Your task to perform on an android device: Search for "lenovo thinkpad" on amazon, select the first entry, add it to the cart, then select checkout. Image 0: 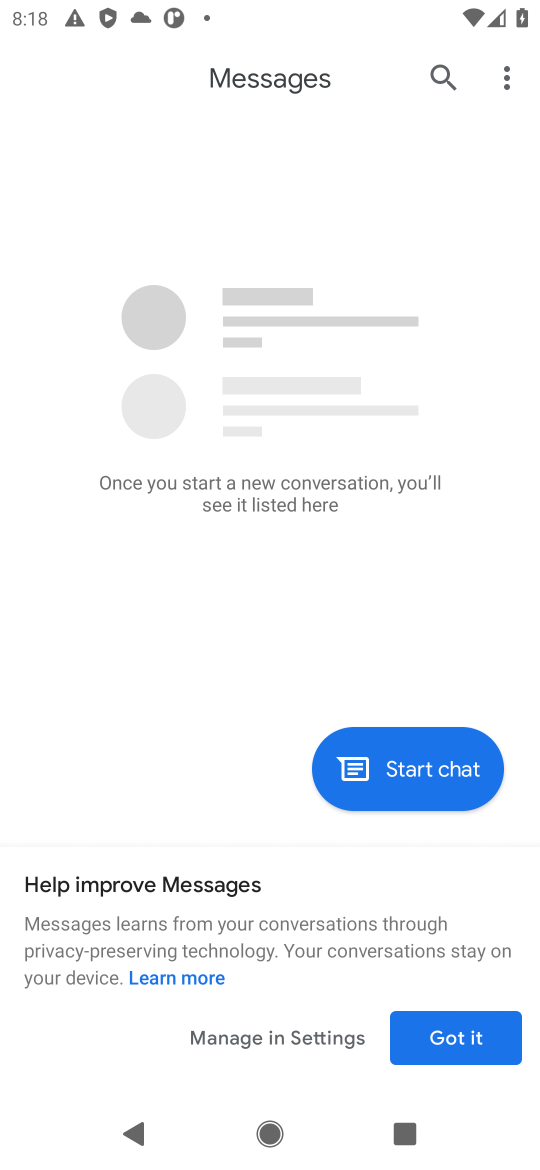
Step 0: press home button
Your task to perform on an android device: Search for "lenovo thinkpad" on amazon, select the first entry, add it to the cart, then select checkout. Image 1: 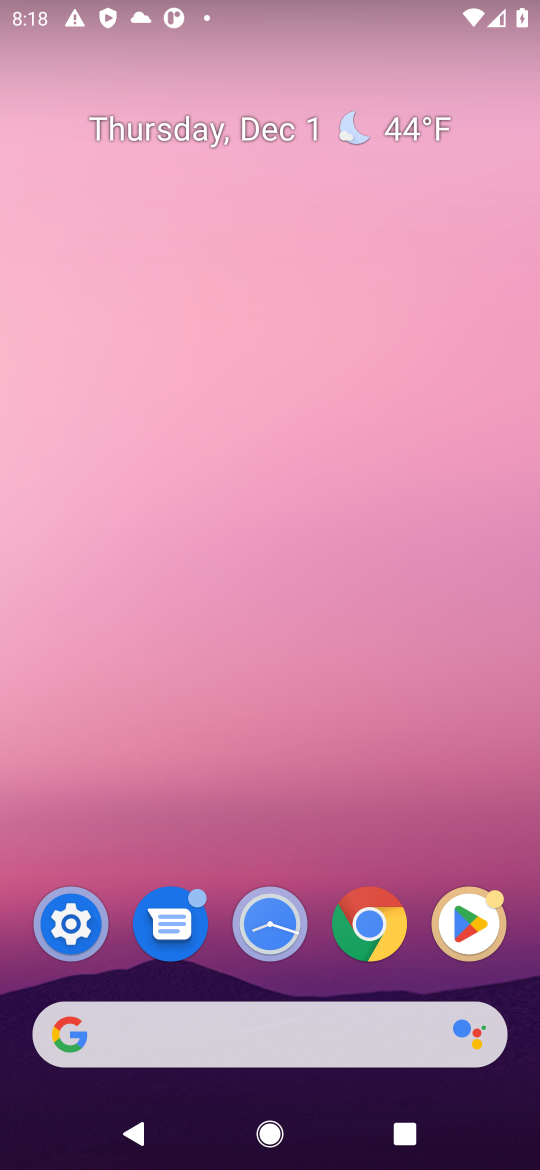
Step 1: click (173, 1029)
Your task to perform on an android device: Search for "lenovo thinkpad" on amazon, select the first entry, add it to the cart, then select checkout. Image 2: 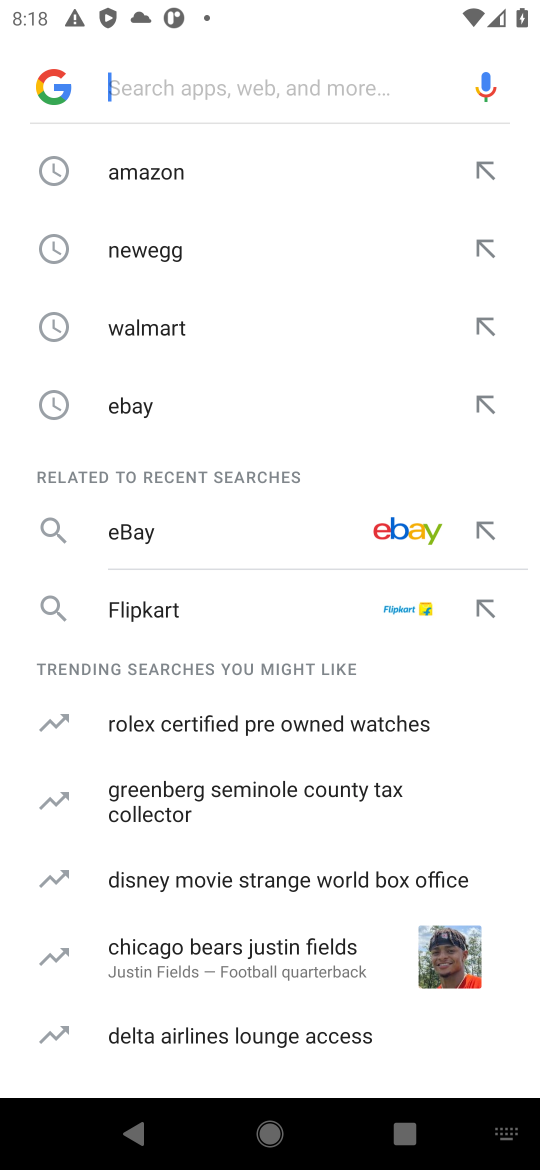
Step 2: click (189, 180)
Your task to perform on an android device: Search for "lenovo thinkpad" on amazon, select the first entry, add it to the cart, then select checkout. Image 3: 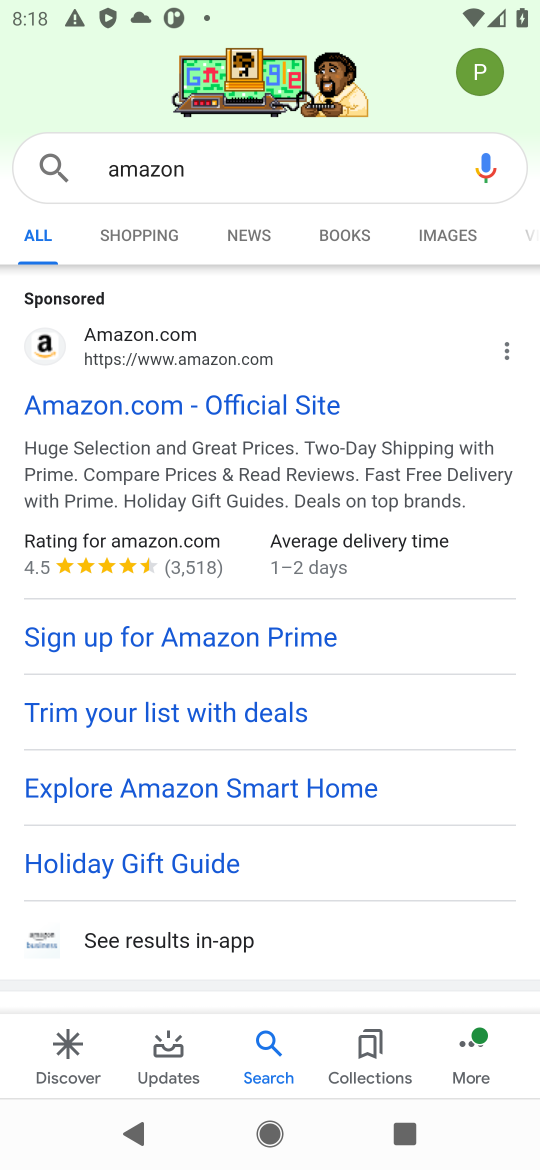
Step 3: click (146, 423)
Your task to perform on an android device: Search for "lenovo thinkpad" on amazon, select the first entry, add it to the cart, then select checkout. Image 4: 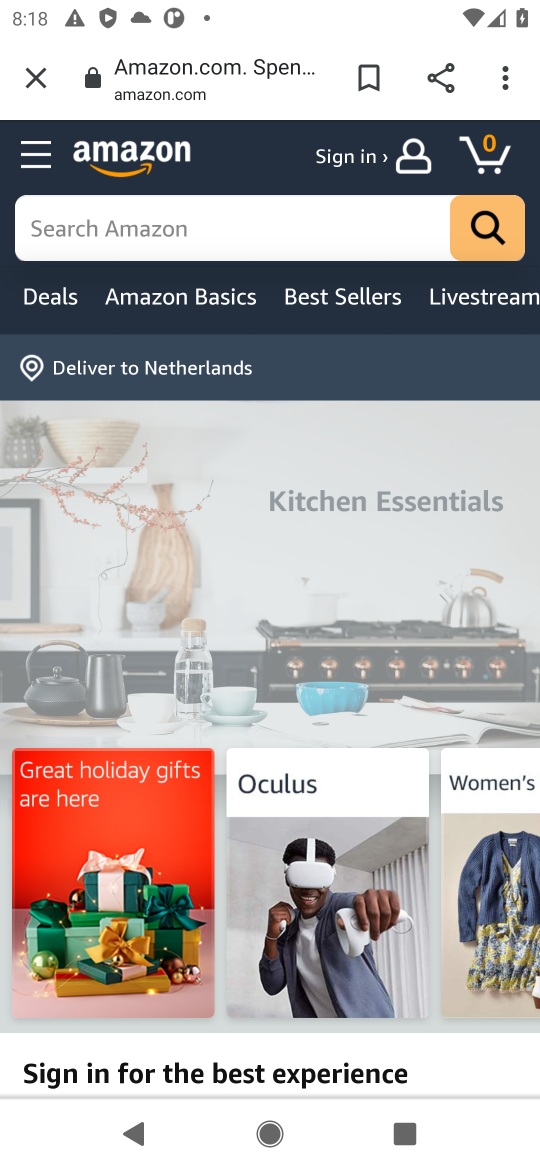
Step 4: click (161, 215)
Your task to perform on an android device: Search for "lenovo thinkpad" on amazon, select the first entry, add it to the cart, then select checkout. Image 5: 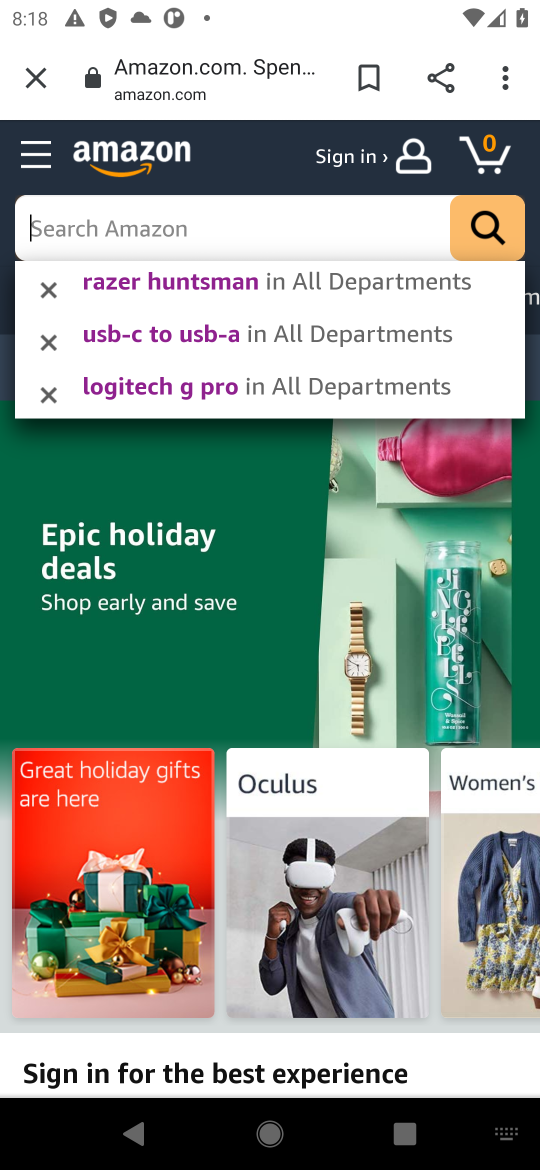
Step 5: type "lenovo thinkpad"
Your task to perform on an android device: Search for "lenovo thinkpad" on amazon, select the first entry, add it to the cart, then select checkout. Image 6: 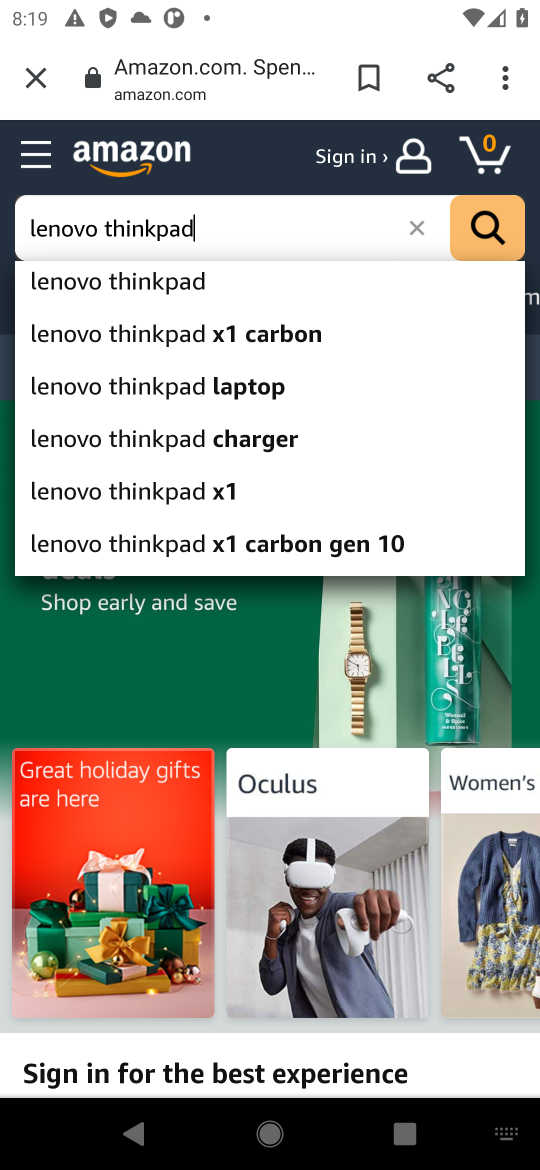
Step 6: click (102, 300)
Your task to perform on an android device: Search for "lenovo thinkpad" on amazon, select the first entry, add it to the cart, then select checkout. Image 7: 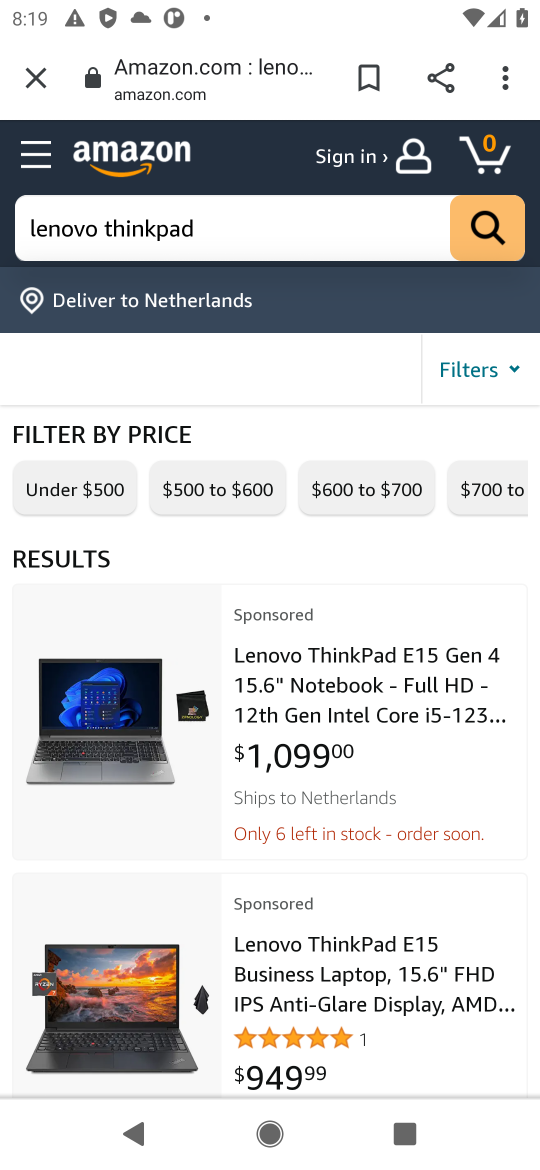
Step 7: click (346, 693)
Your task to perform on an android device: Search for "lenovo thinkpad" on amazon, select the first entry, add it to the cart, then select checkout. Image 8: 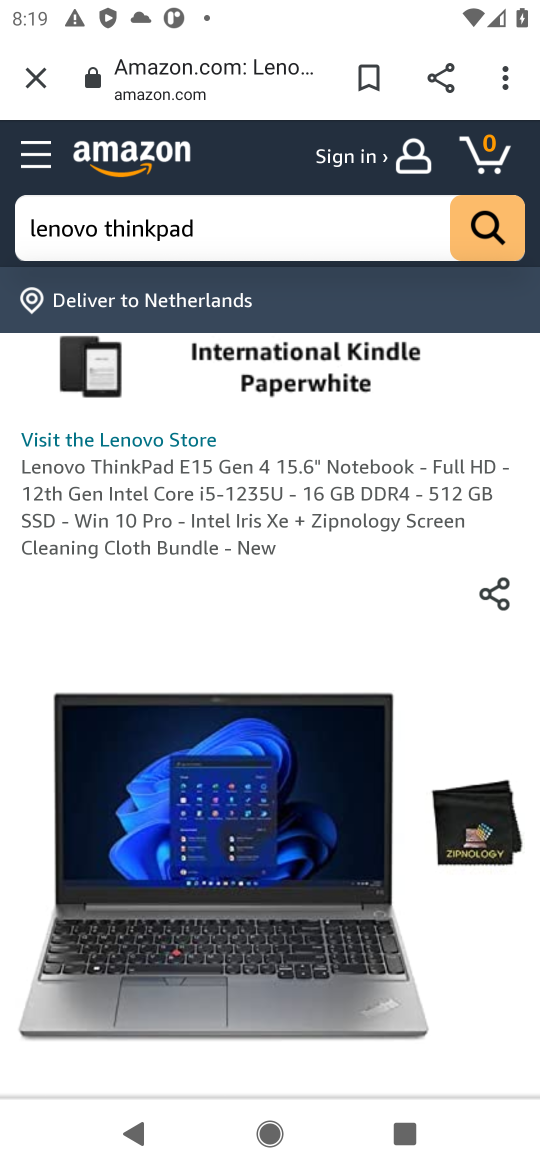
Step 8: drag from (490, 1040) to (365, 638)
Your task to perform on an android device: Search for "lenovo thinkpad" on amazon, select the first entry, add it to the cart, then select checkout. Image 9: 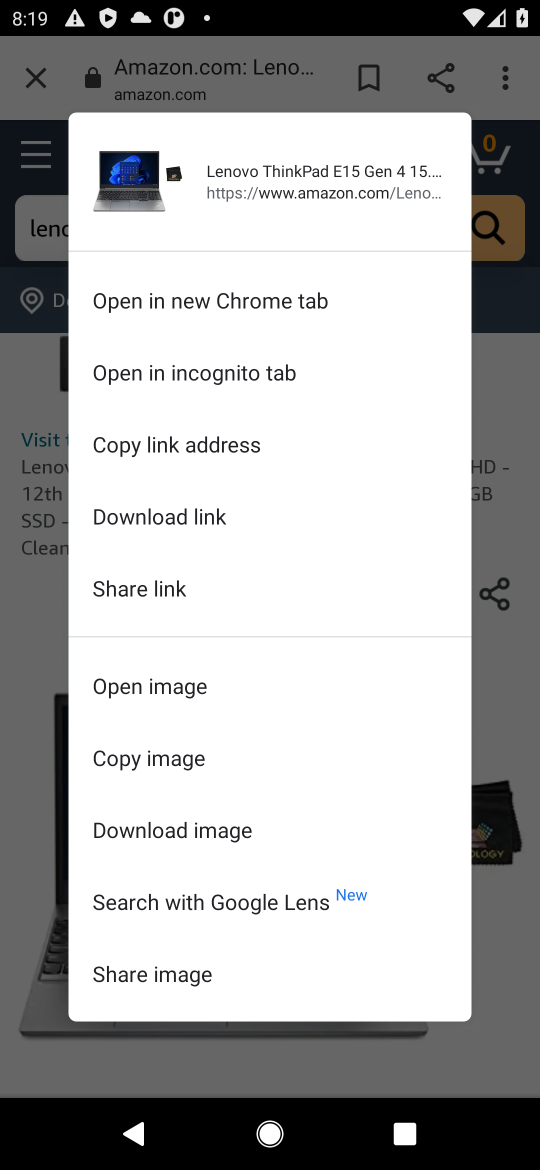
Step 9: click (492, 689)
Your task to perform on an android device: Search for "lenovo thinkpad" on amazon, select the first entry, add it to the cart, then select checkout. Image 10: 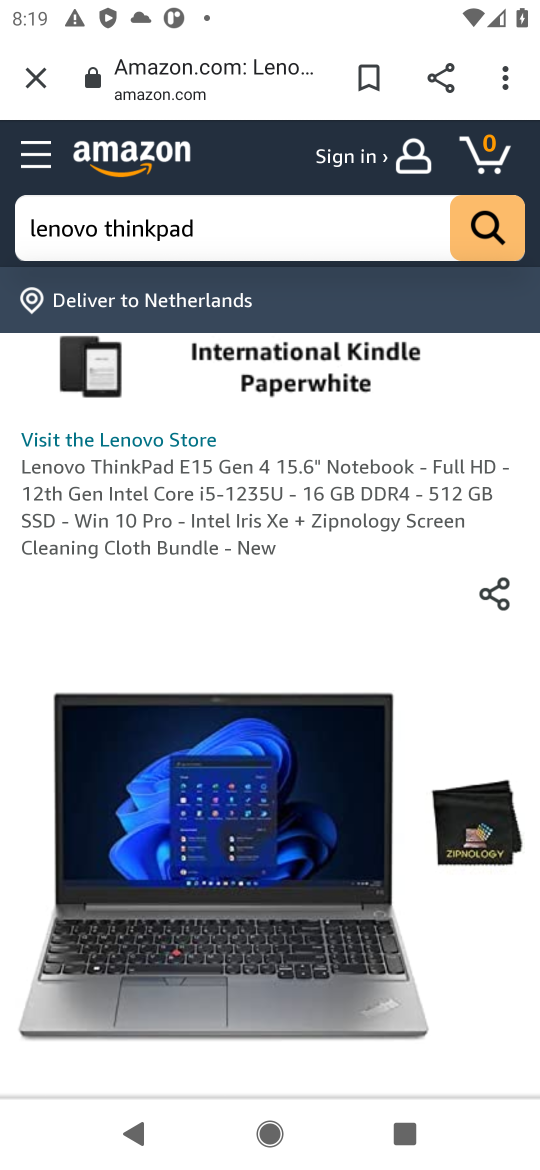
Step 10: drag from (430, 951) to (338, 416)
Your task to perform on an android device: Search for "lenovo thinkpad" on amazon, select the first entry, add it to the cart, then select checkout. Image 11: 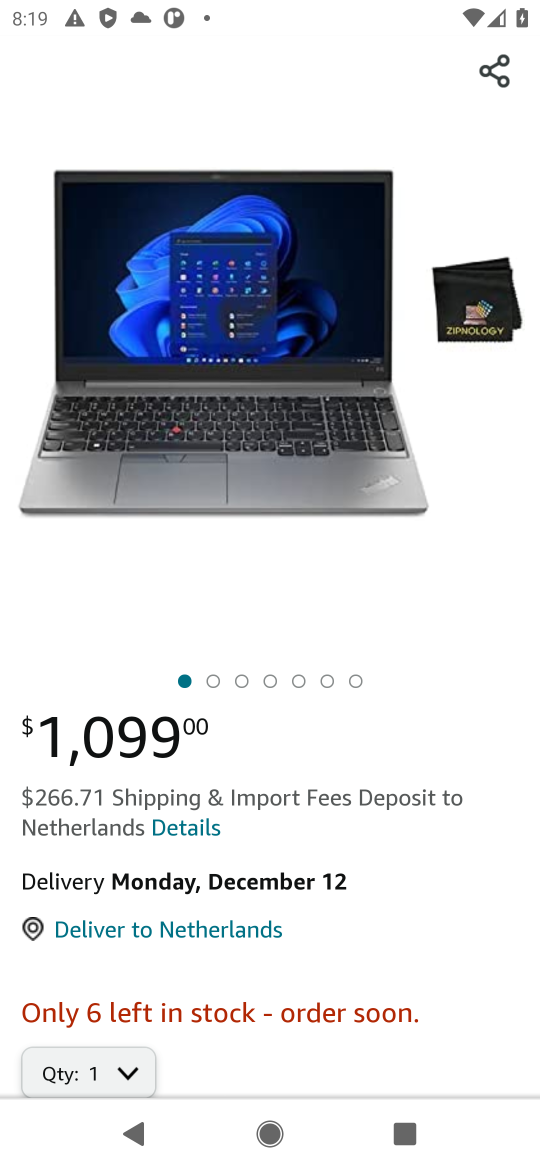
Step 11: drag from (426, 898) to (406, 306)
Your task to perform on an android device: Search for "lenovo thinkpad" on amazon, select the first entry, add it to the cart, then select checkout. Image 12: 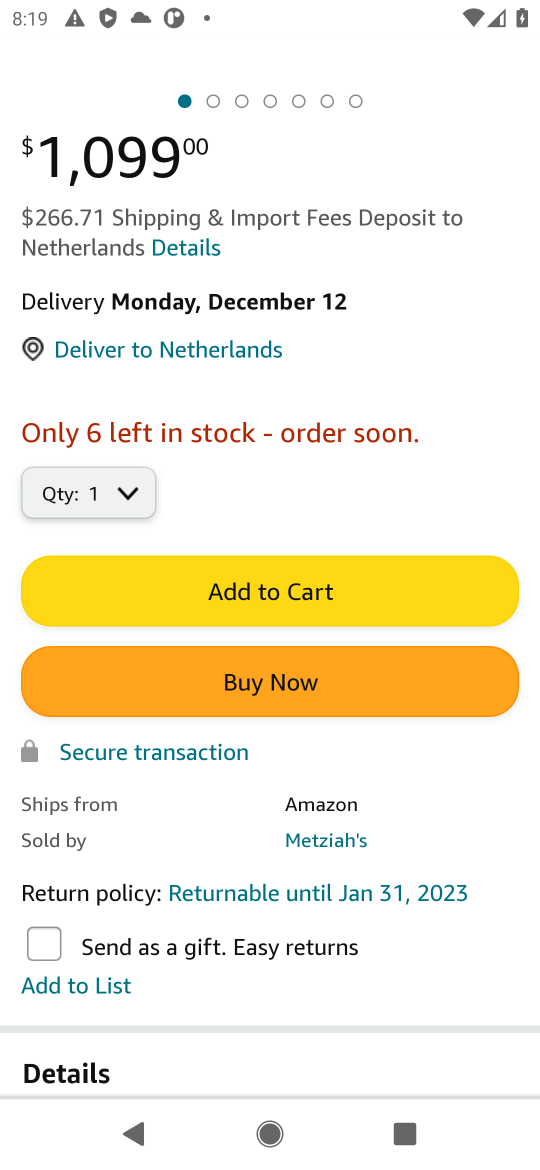
Step 12: click (403, 598)
Your task to perform on an android device: Search for "lenovo thinkpad" on amazon, select the first entry, add it to the cart, then select checkout. Image 13: 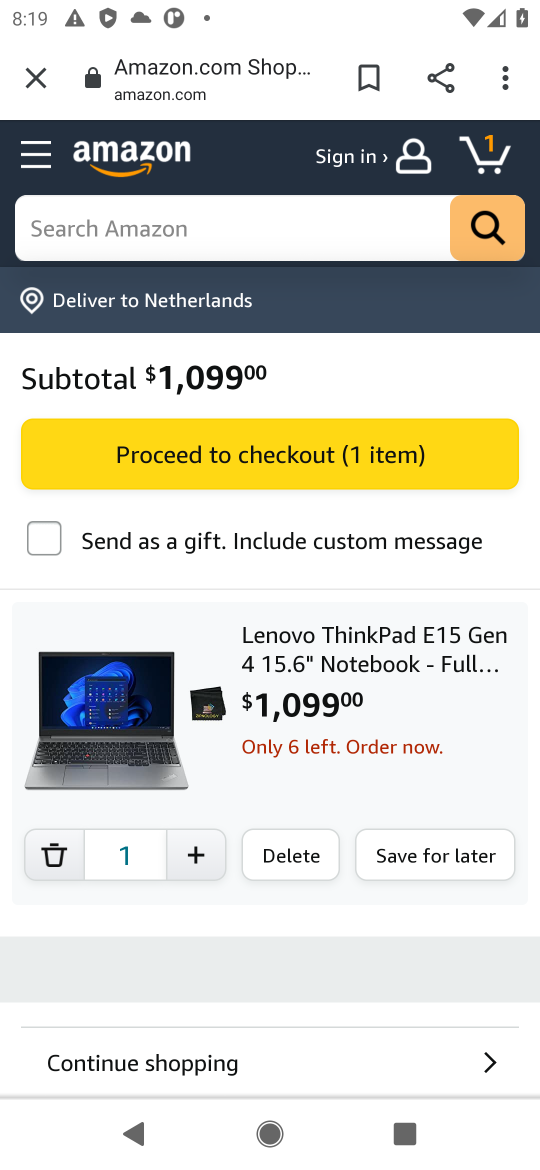
Step 13: task complete